Your task to perform on an android device: Go to battery settings Image 0: 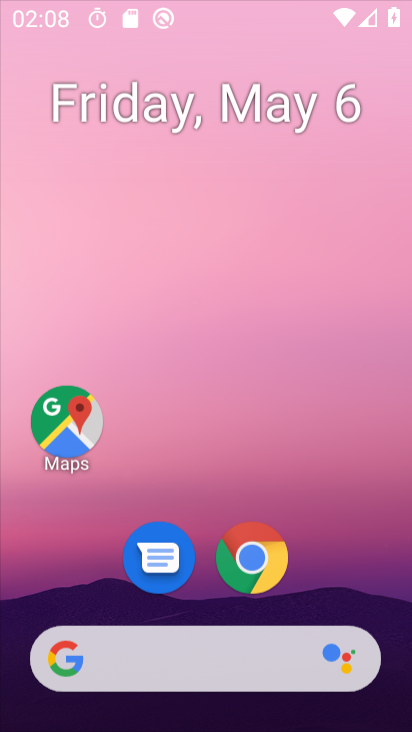
Step 0: drag from (337, 452) to (320, 34)
Your task to perform on an android device: Go to battery settings Image 1: 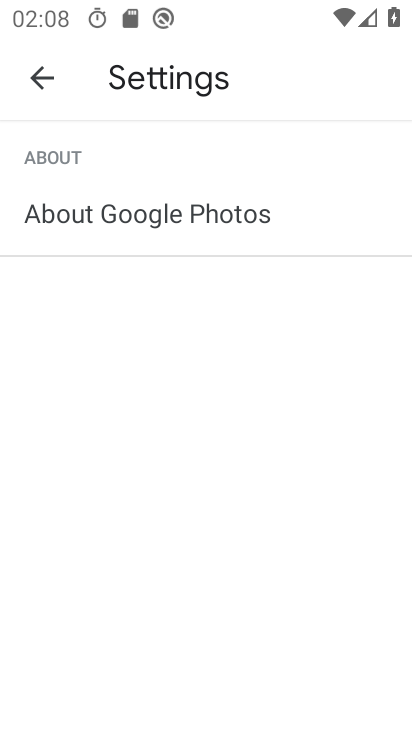
Step 1: press home button
Your task to perform on an android device: Go to battery settings Image 2: 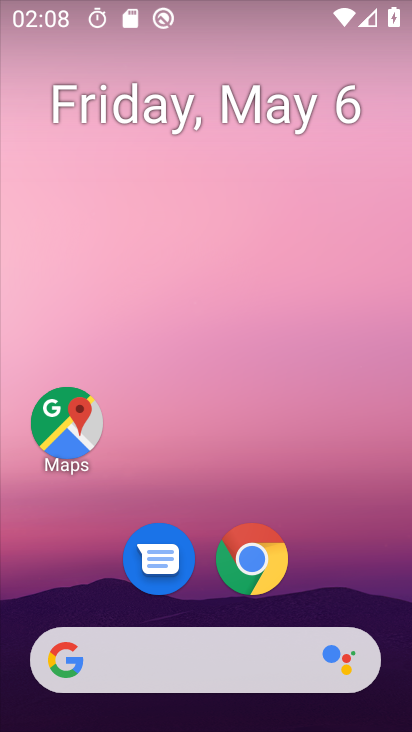
Step 2: drag from (277, 616) to (246, 30)
Your task to perform on an android device: Go to battery settings Image 3: 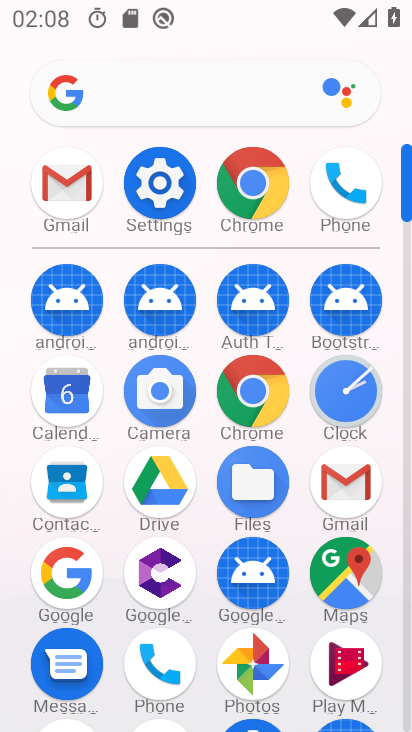
Step 3: drag from (204, 538) to (209, 235)
Your task to perform on an android device: Go to battery settings Image 4: 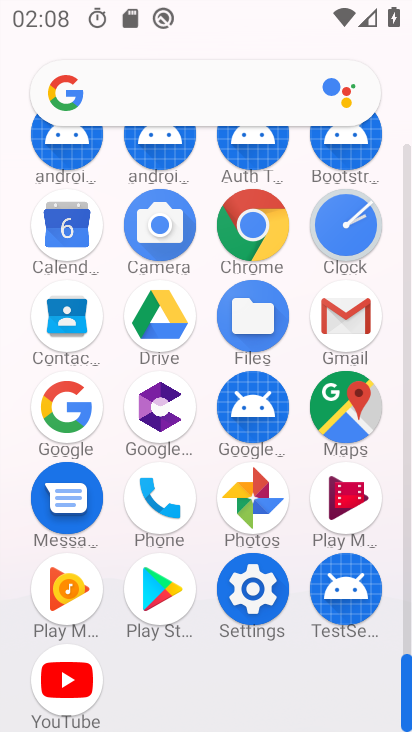
Step 4: click (247, 598)
Your task to perform on an android device: Go to battery settings Image 5: 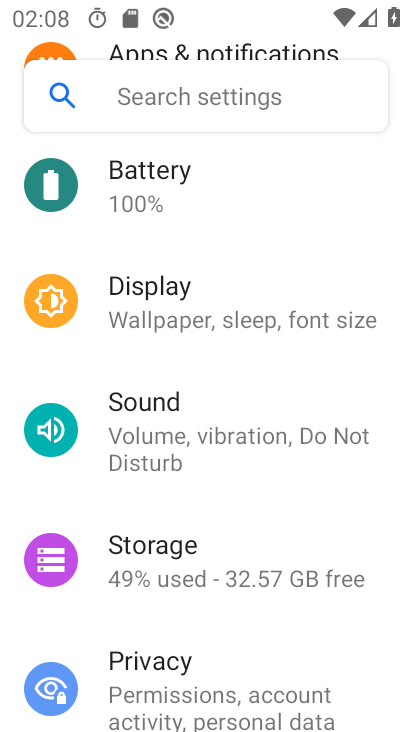
Step 5: click (159, 199)
Your task to perform on an android device: Go to battery settings Image 6: 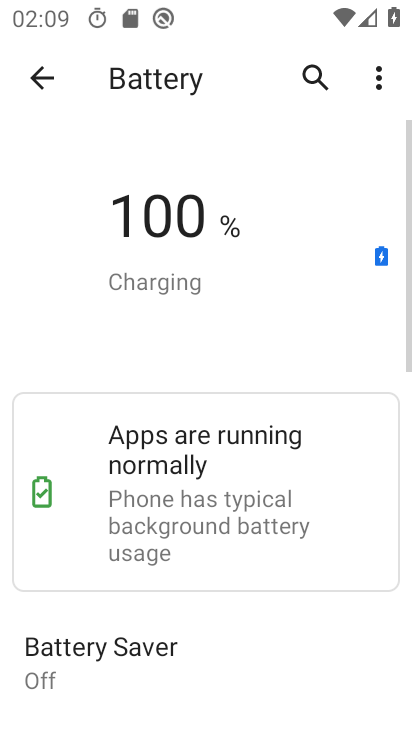
Step 6: task complete